Your task to perform on an android device: change text size in settings app Image 0: 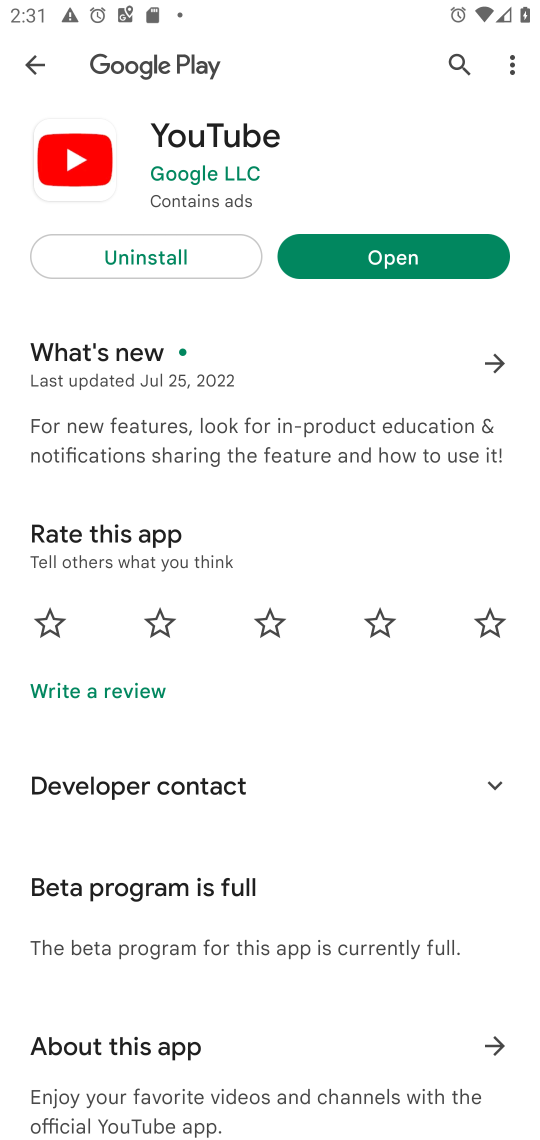
Step 0: press home button
Your task to perform on an android device: change text size in settings app Image 1: 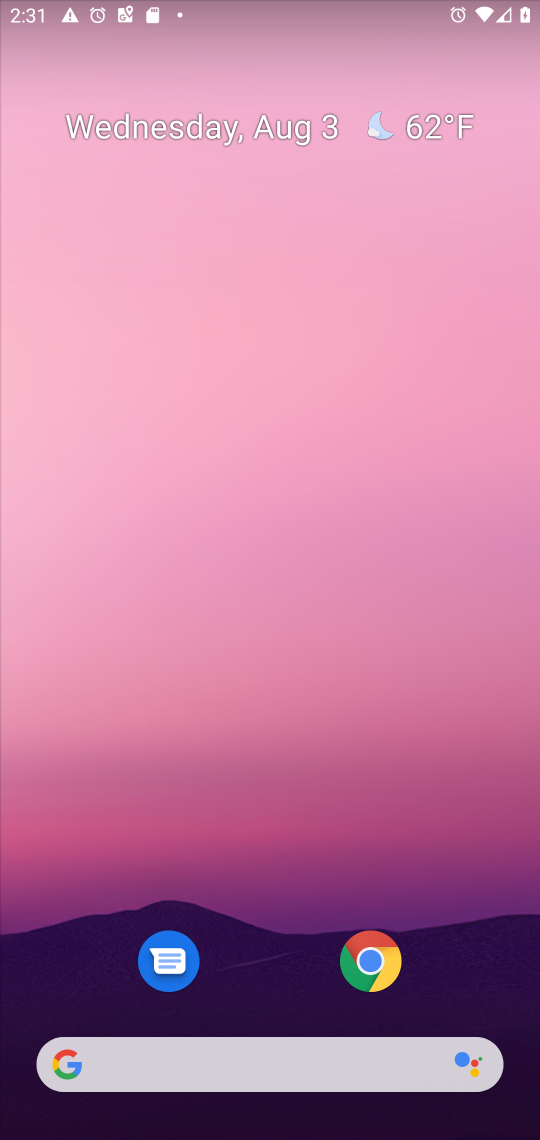
Step 1: drag from (259, 901) to (296, 39)
Your task to perform on an android device: change text size in settings app Image 2: 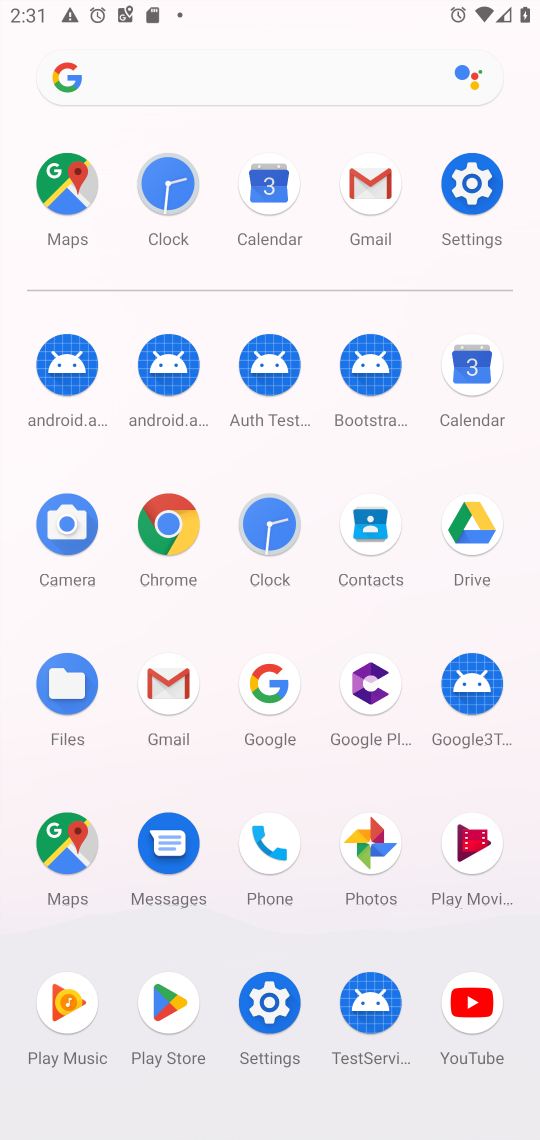
Step 2: click (482, 172)
Your task to perform on an android device: change text size in settings app Image 3: 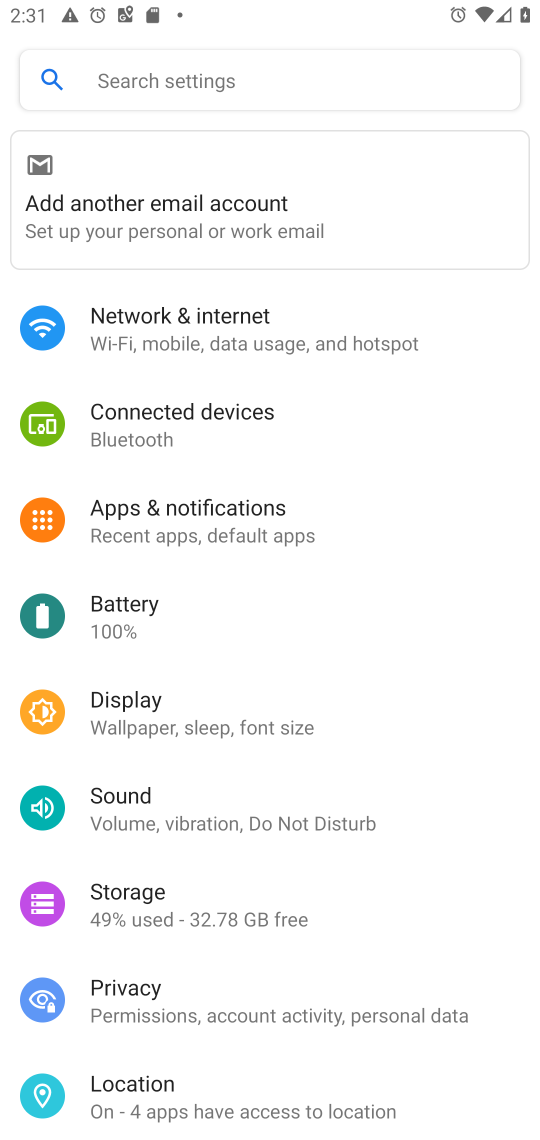
Step 3: drag from (491, 949) to (411, 471)
Your task to perform on an android device: change text size in settings app Image 4: 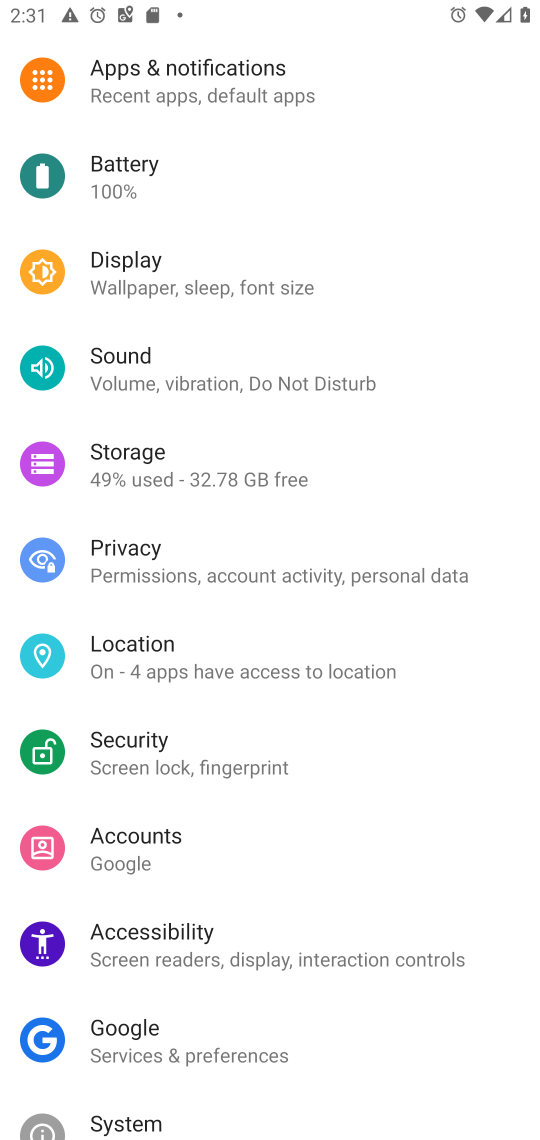
Step 4: click (155, 929)
Your task to perform on an android device: change text size in settings app Image 5: 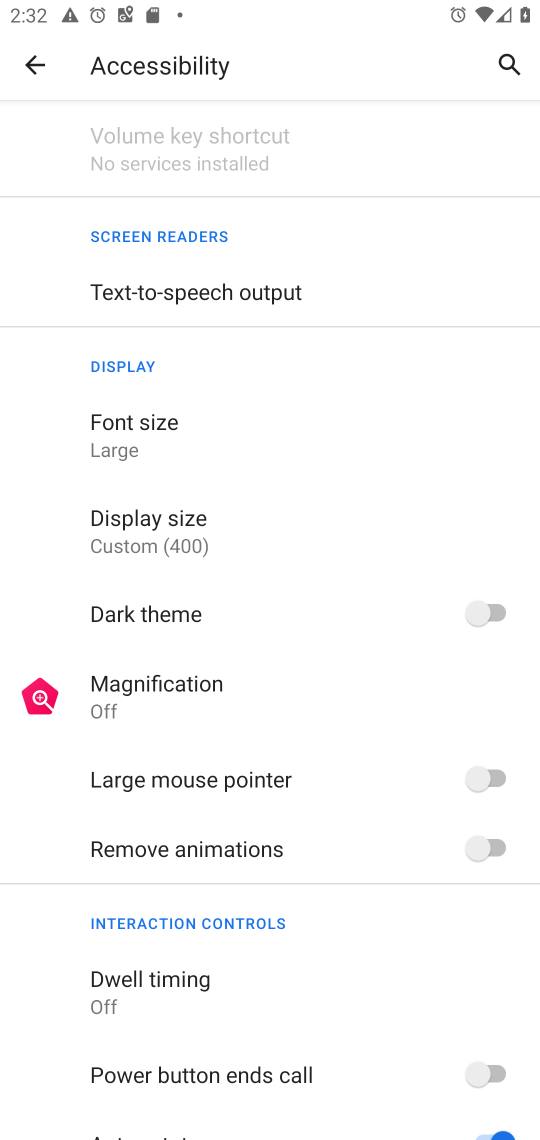
Step 5: click (120, 455)
Your task to perform on an android device: change text size in settings app Image 6: 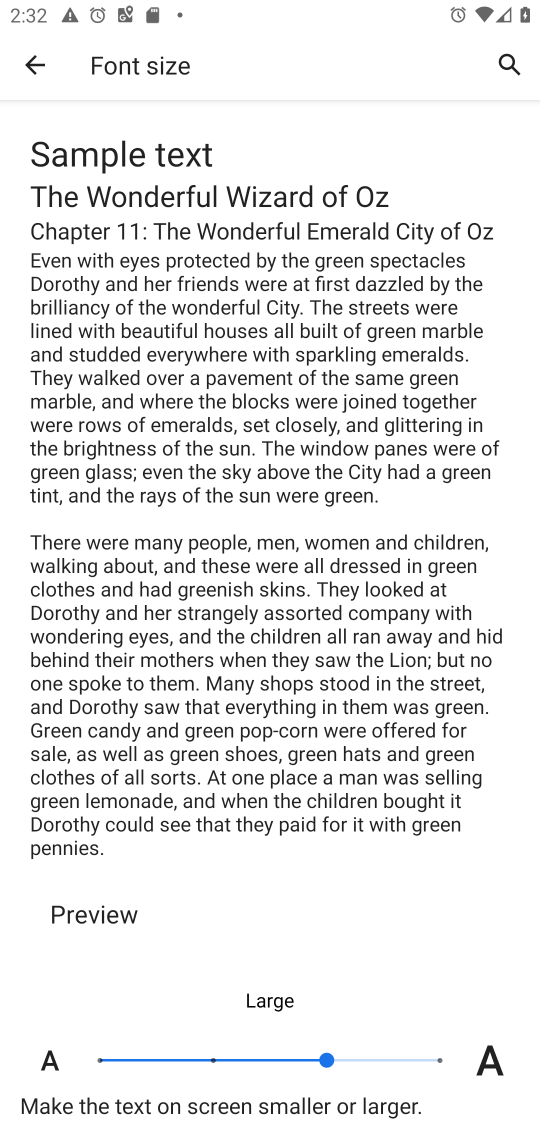
Step 6: click (434, 1076)
Your task to perform on an android device: change text size in settings app Image 7: 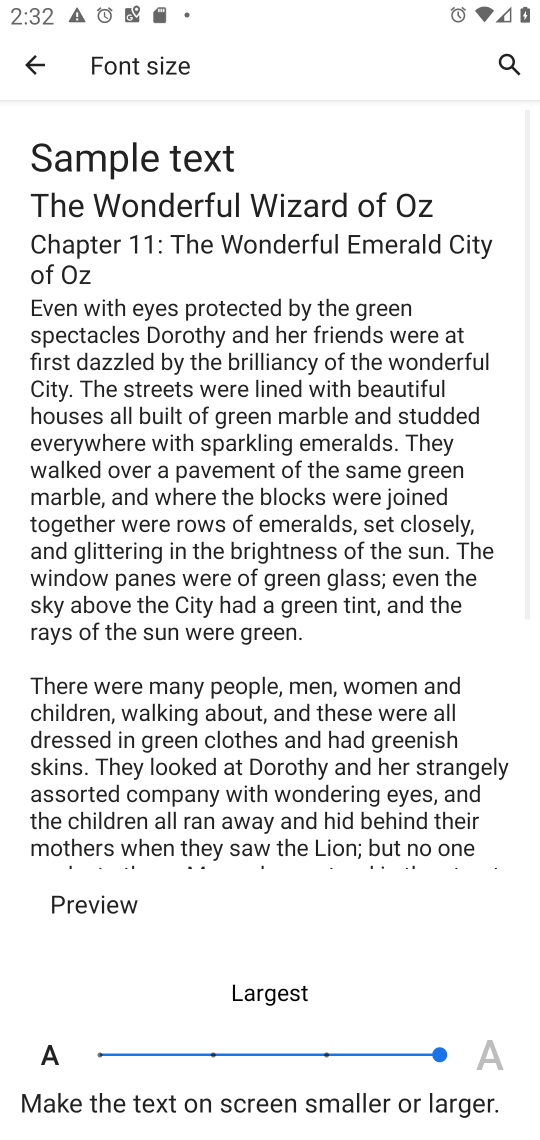
Step 7: task complete